Your task to perform on an android device: What is the recent news? Image 0: 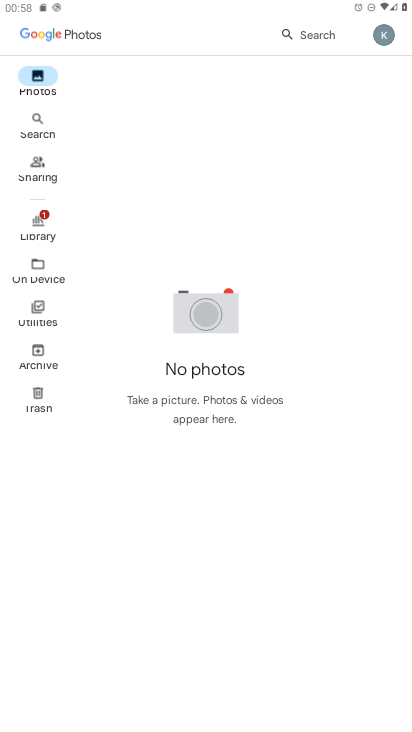
Step 0: press home button
Your task to perform on an android device: What is the recent news? Image 1: 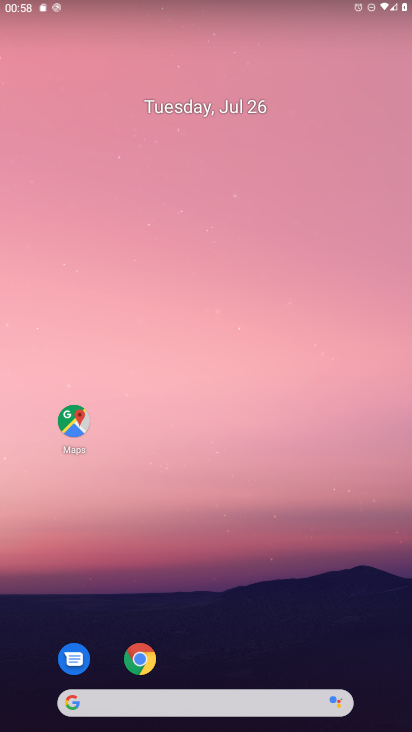
Step 1: click (140, 662)
Your task to perform on an android device: What is the recent news? Image 2: 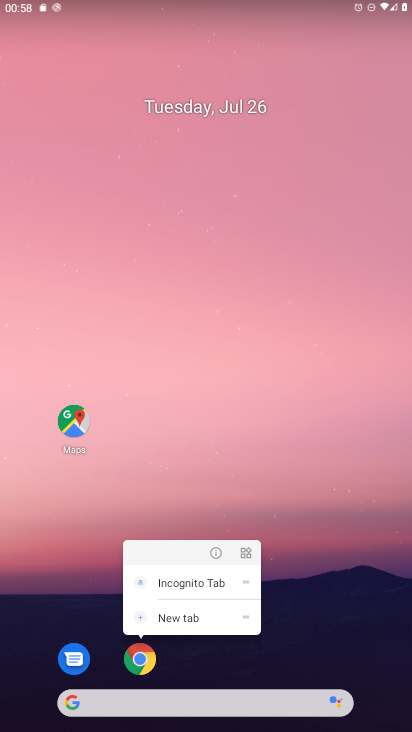
Step 2: click (141, 657)
Your task to perform on an android device: What is the recent news? Image 3: 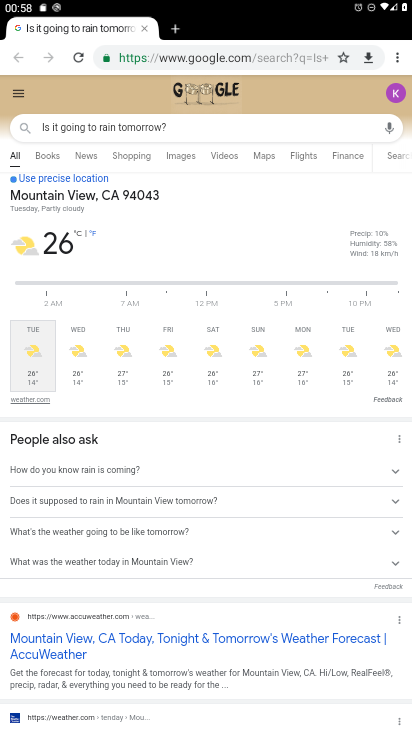
Step 3: click (192, 55)
Your task to perform on an android device: What is the recent news? Image 4: 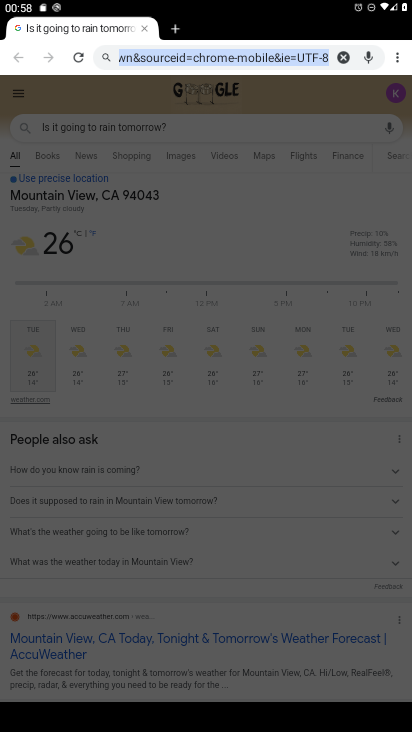
Step 4: type "What is the recent news?"
Your task to perform on an android device: What is the recent news? Image 5: 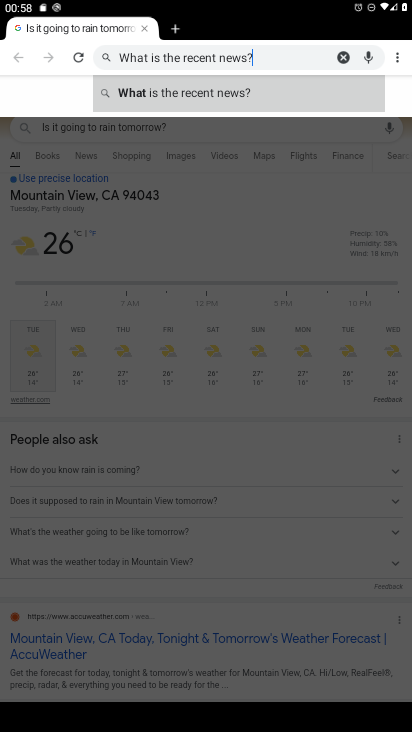
Step 5: click (166, 84)
Your task to perform on an android device: What is the recent news? Image 6: 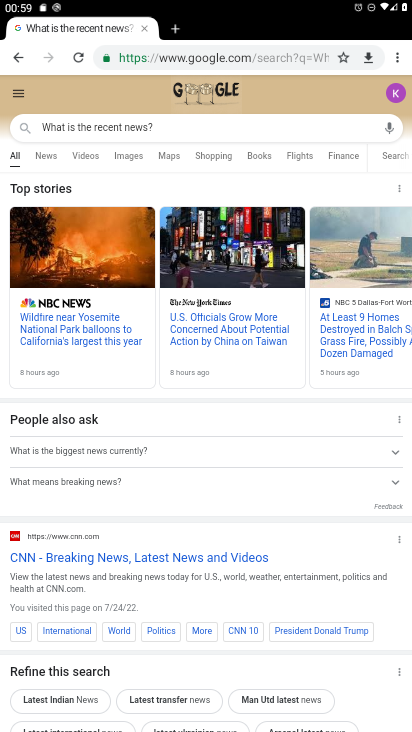
Step 6: task complete